Your task to perform on an android device: Search for Mexican restaurants on Maps Image 0: 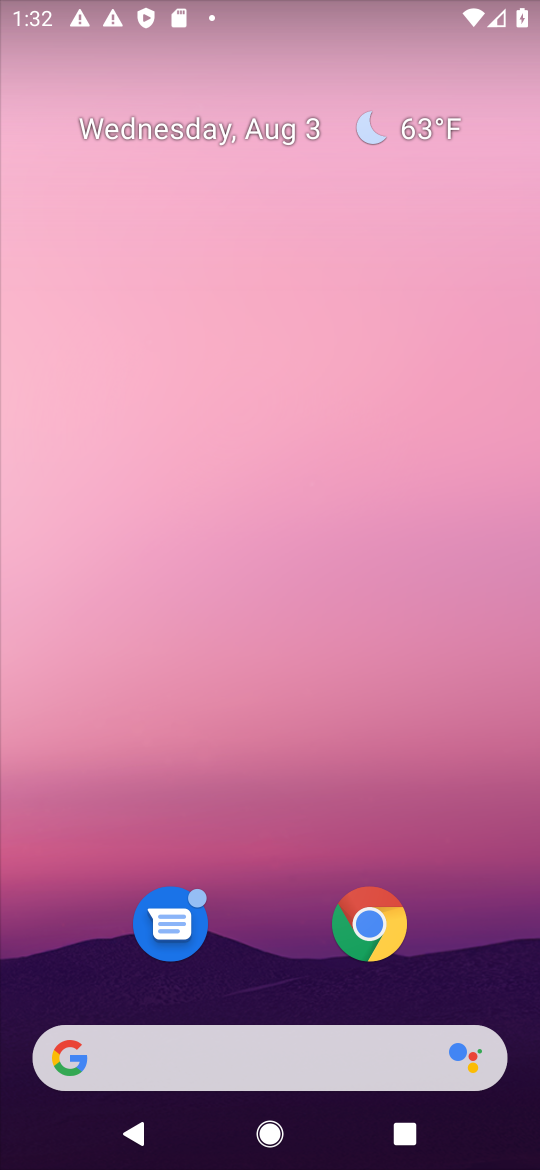
Step 0: drag from (263, 990) to (216, 7)
Your task to perform on an android device: Search for Mexican restaurants on Maps Image 1: 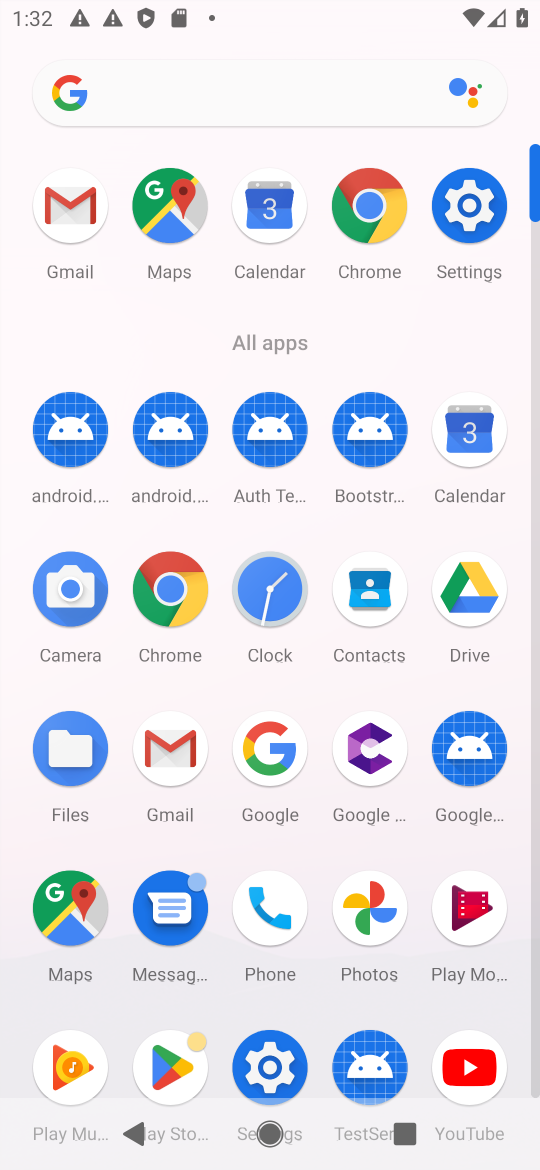
Step 1: click (66, 902)
Your task to perform on an android device: Search for Mexican restaurants on Maps Image 2: 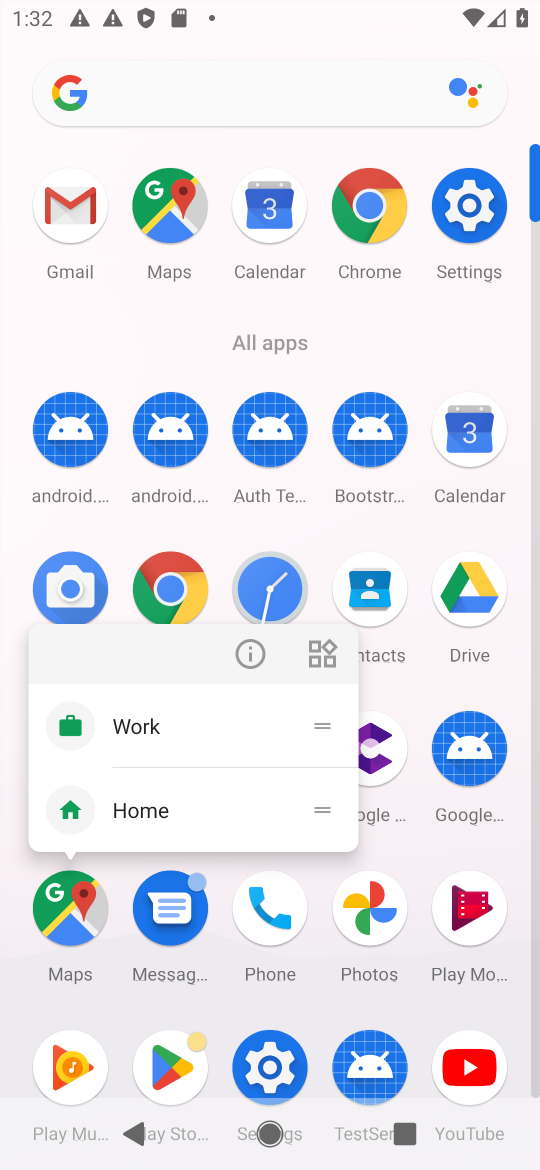
Step 2: click (76, 899)
Your task to perform on an android device: Search for Mexican restaurants on Maps Image 3: 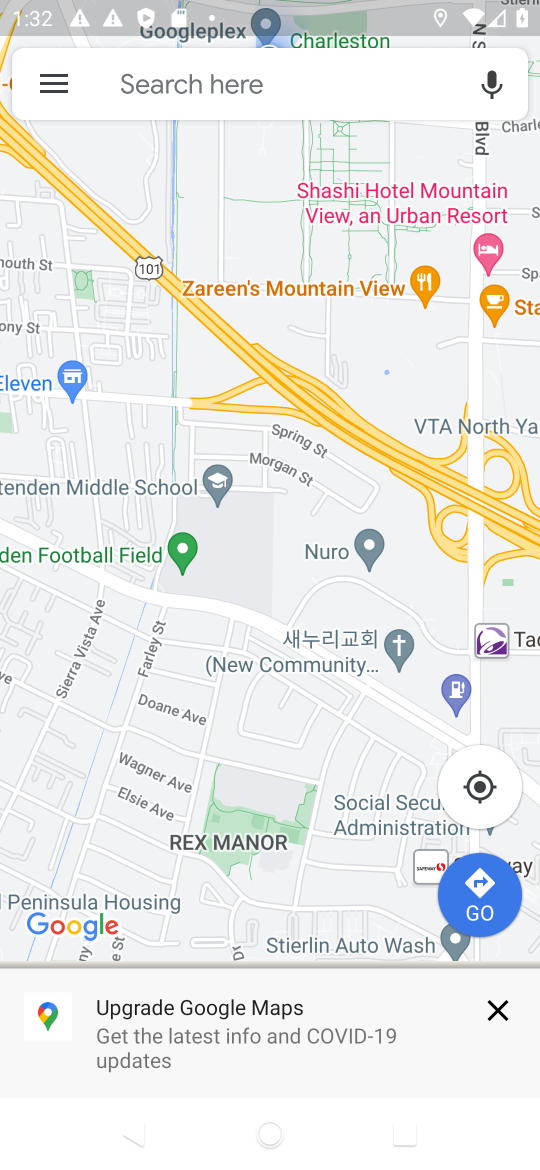
Step 3: click (177, 86)
Your task to perform on an android device: Search for Mexican restaurants on Maps Image 4: 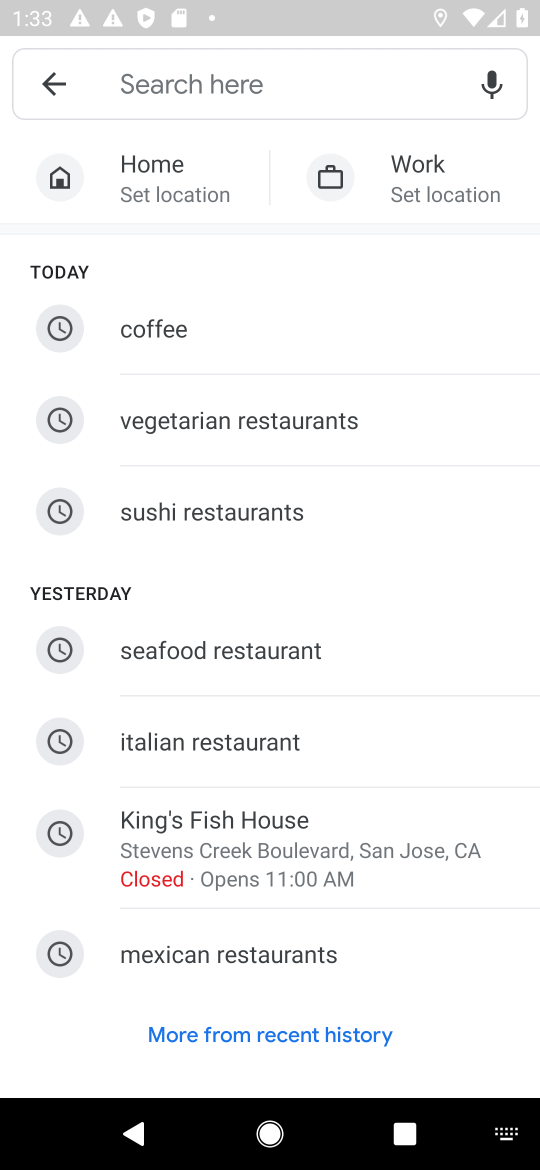
Step 4: click (162, 936)
Your task to perform on an android device: Search for Mexican restaurants on Maps Image 5: 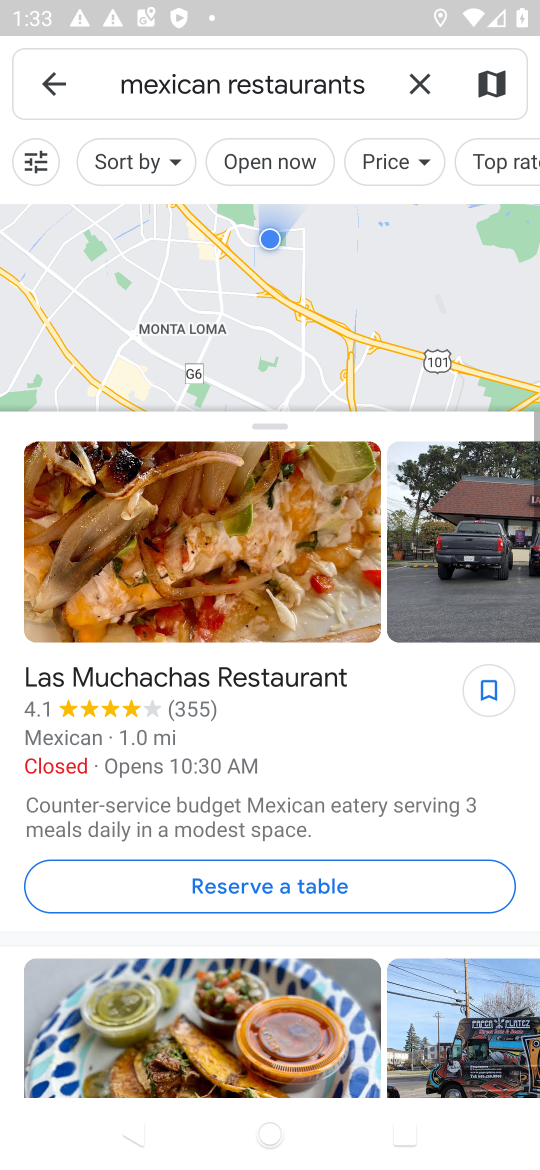
Step 5: task complete